Your task to perform on an android device: visit the assistant section in the google photos Image 0: 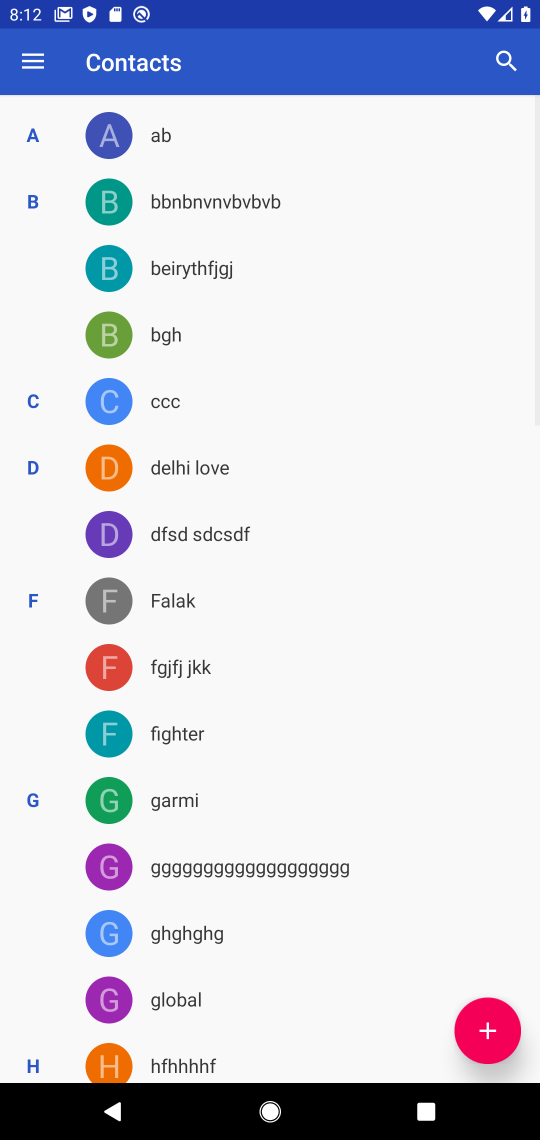
Step 0: press home button
Your task to perform on an android device: visit the assistant section in the google photos Image 1: 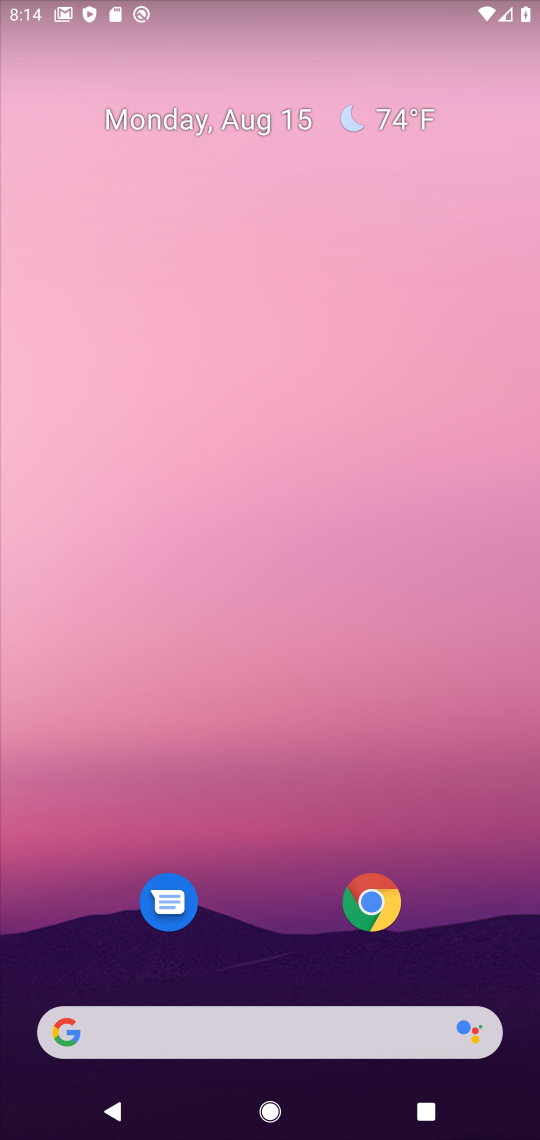
Step 1: drag from (451, 815) to (346, 9)
Your task to perform on an android device: visit the assistant section in the google photos Image 2: 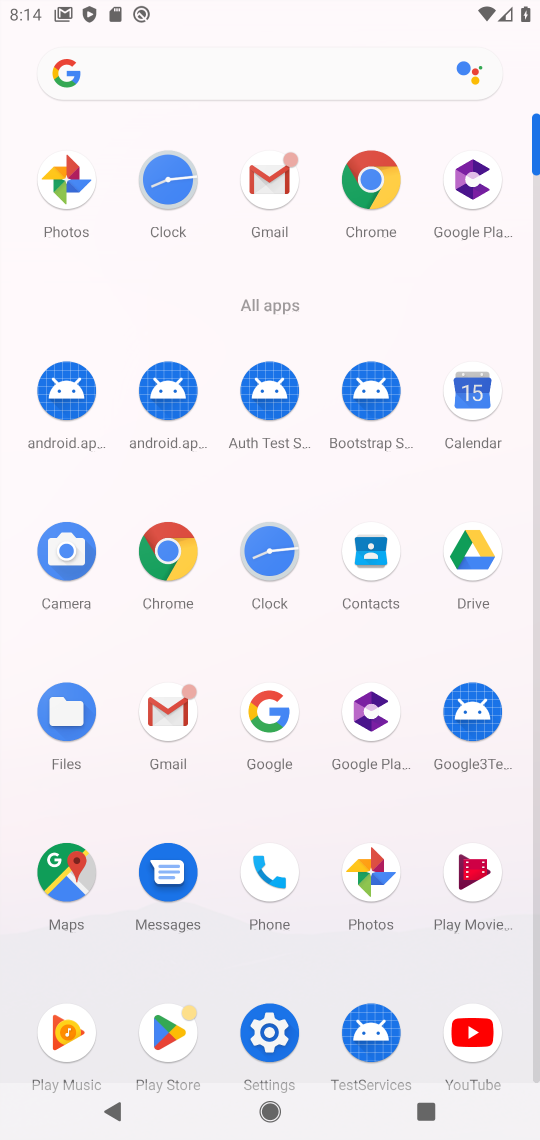
Step 2: click (386, 869)
Your task to perform on an android device: visit the assistant section in the google photos Image 3: 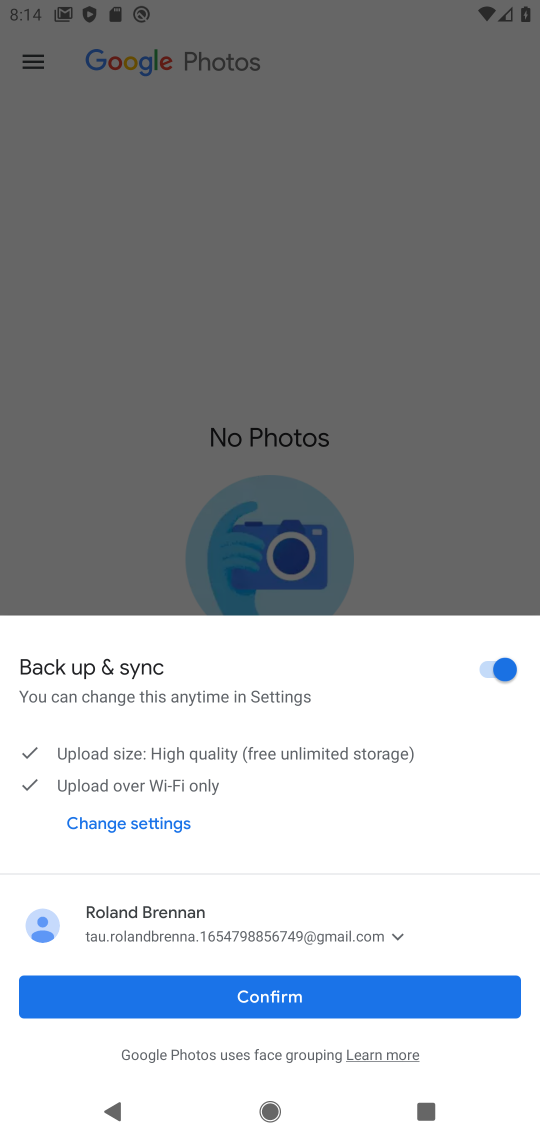
Step 3: press home button
Your task to perform on an android device: visit the assistant section in the google photos Image 4: 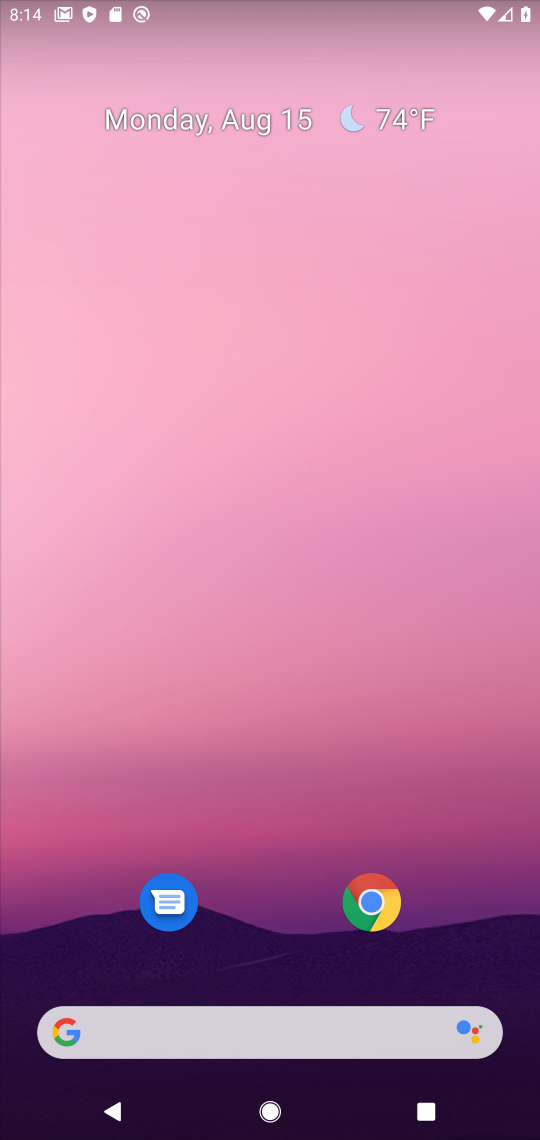
Step 4: drag from (442, 936) to (219, 30)
Your task to perform on an android device: visit the assistant section in the google photos Image 5: 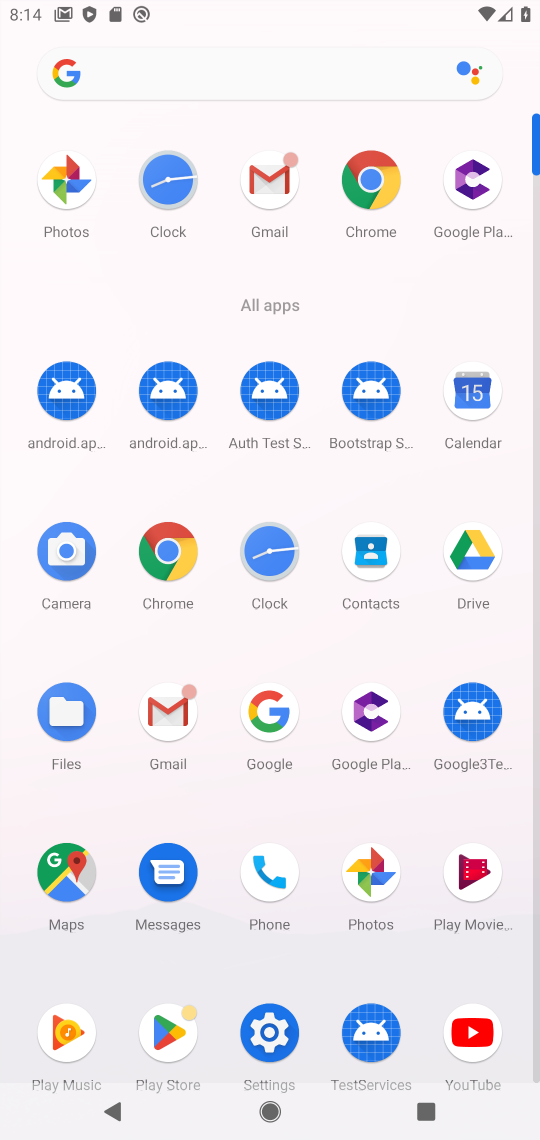
Step 5: click (367, 856)
Your task to perform on an android device: visit the assistant section in the google photos Image 6: 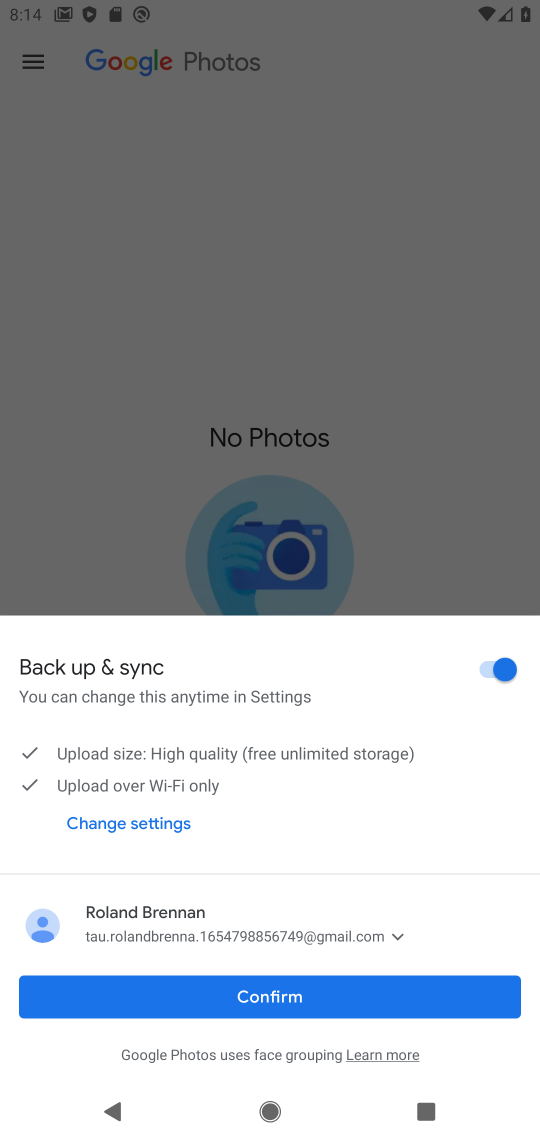
Step 6: task complete